Your task to perform on an android device: Open Youtube and go to "Your channel" Image 0: 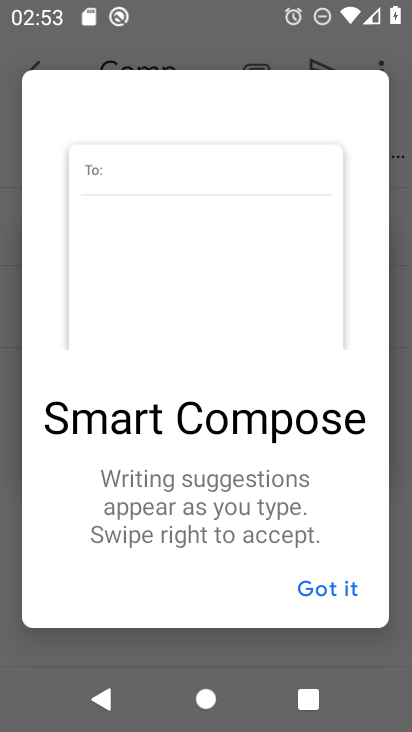
Step 0: press home button
Your task to perform on an android device: Open Youtube and go to "Your channel" Image 1: 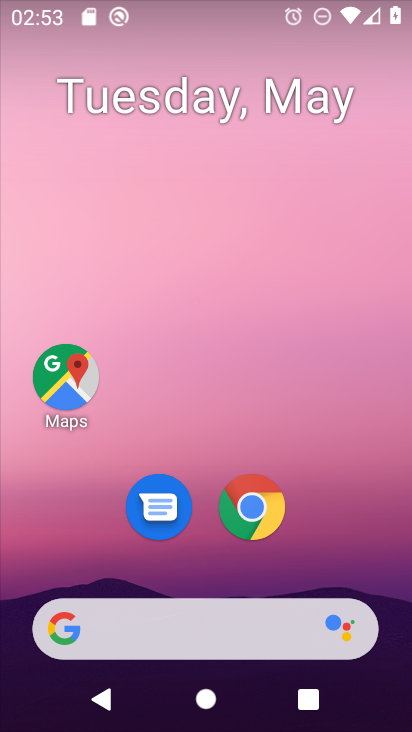
Step 1: drag from (244, 578) to (247, 209)
Your task to perform on an android device: Open Youtube and go to "Your channel" Image 2: 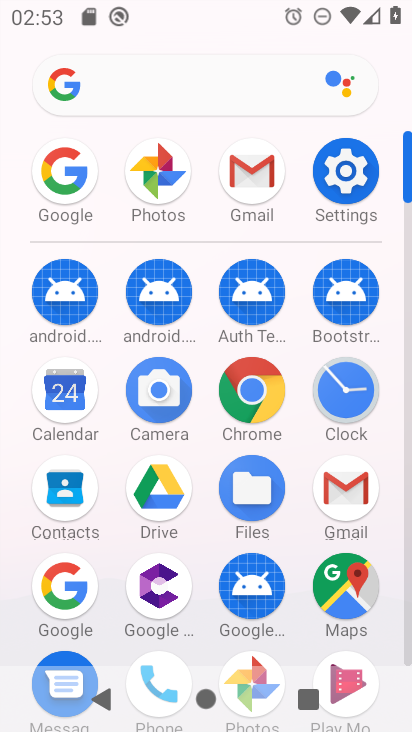
Step 2: click (318, 313)
Your task to perform on an android device: Open Youtube and go to "Your channel" Image 3: 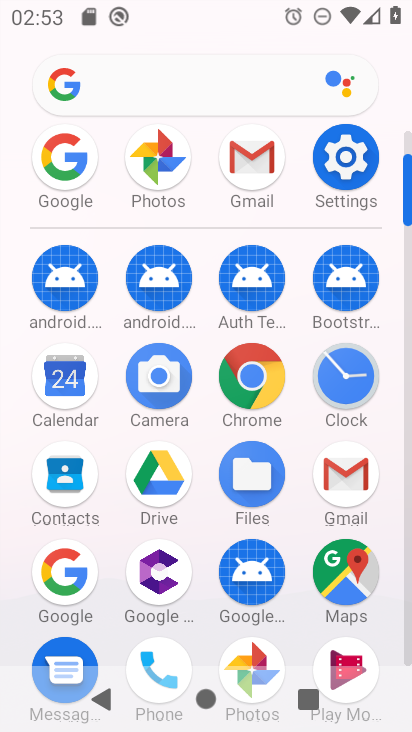
Step 3: drag from (209, 517) to (222, 249)
Your task to perform on an android device: Open Youtube and go to "Your channel" Image 4: 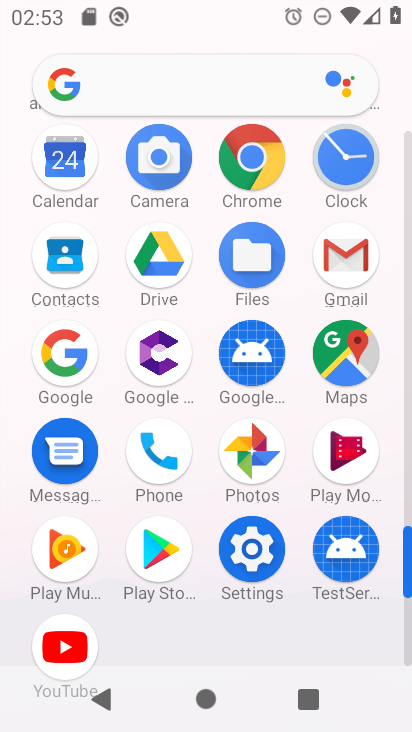
Step 4: click (75, 642)
Your task to perform on an android device: Open Youtube and go to "Your channel" Image 5: 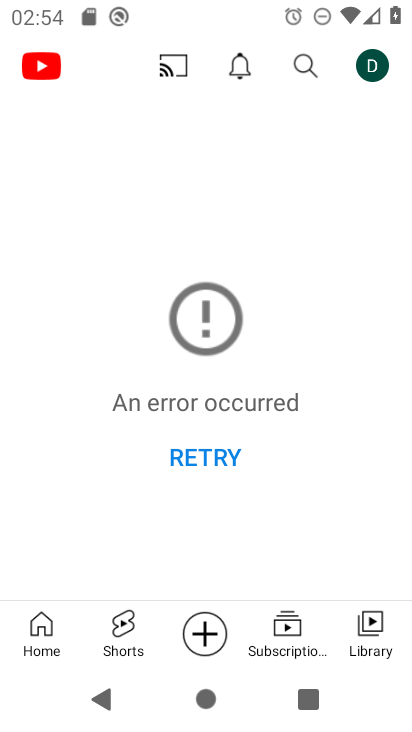
Step 5: click (369, 629)
Your task to perform on an android device: Open Youtube and go to "Your channel" Image 6: 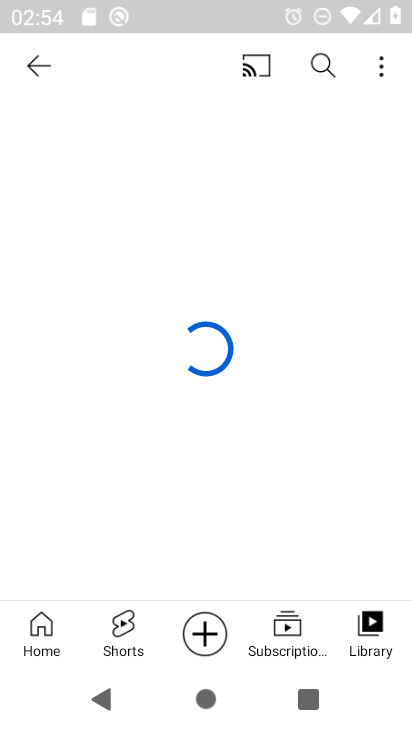
Step 6: click (22, 657)
Your task to perform on an android device: Open Youtube and go to "Your channel" Image 7: 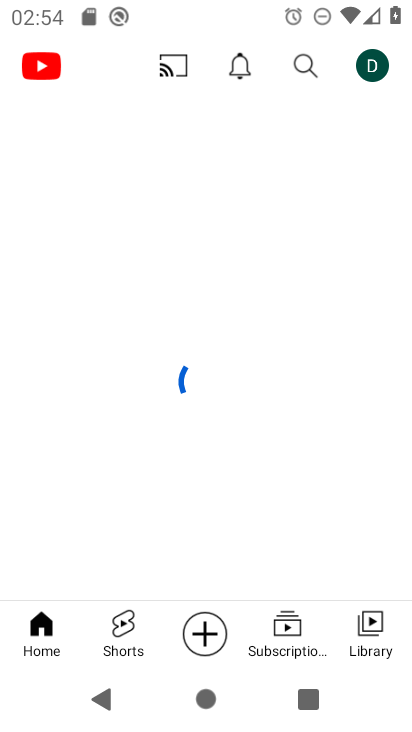
Step 7: click (371, 72)
Your task to perform on an android device: Open Youtube and go to "Your channel" Image 8: 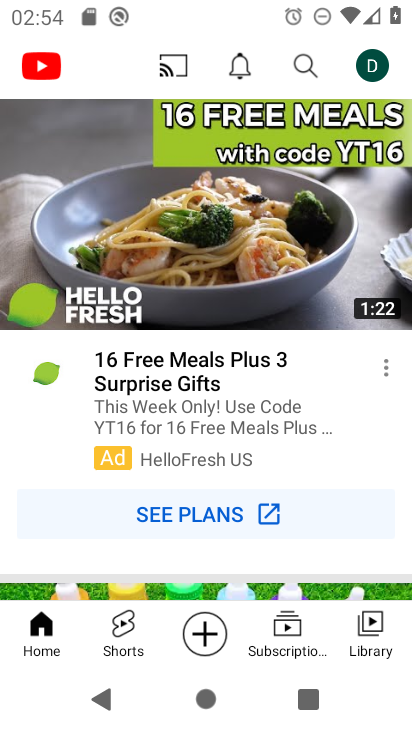
Step 8: click (367, 63)
Your task to perform on an android device: Open Youtube and go to "Your channel" Image 9: 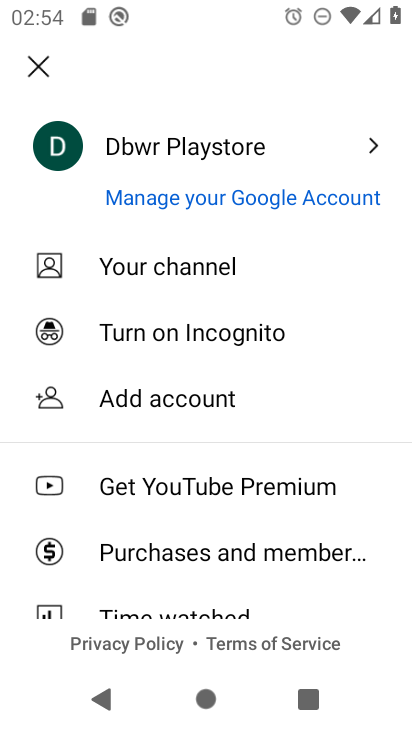
Step 9: click (186, 273)
Your task to perform on an android device: Open Youtube and go to "Your channel" Image 10: 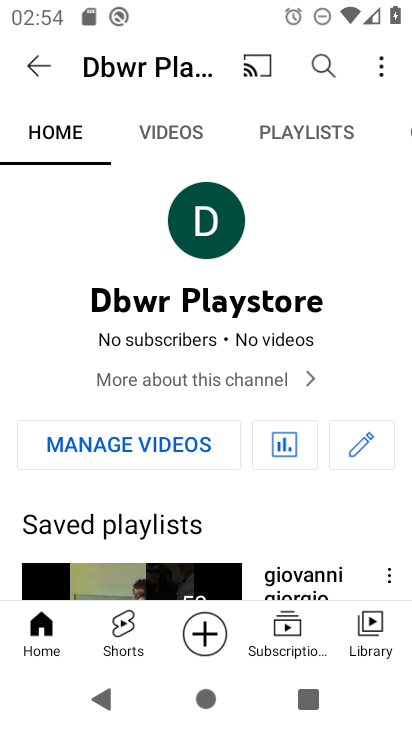
Step 10: task complete